Your task to perform on an android device: move a message to another label in the gmail app Image 0: 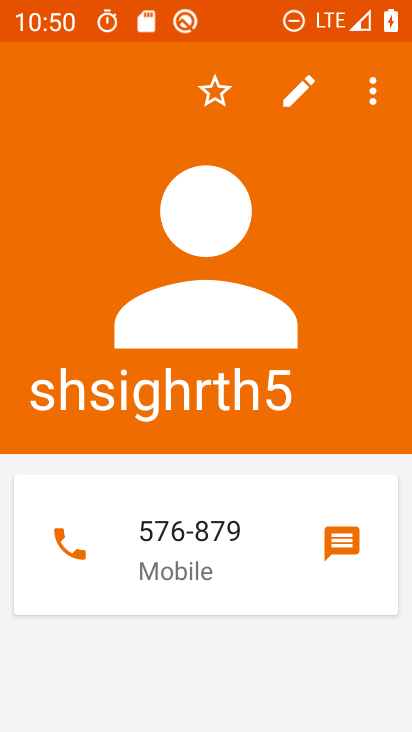
Step 0: press home button
Your task to perform on an android device: move a message to another label in the gmail app Image 1: 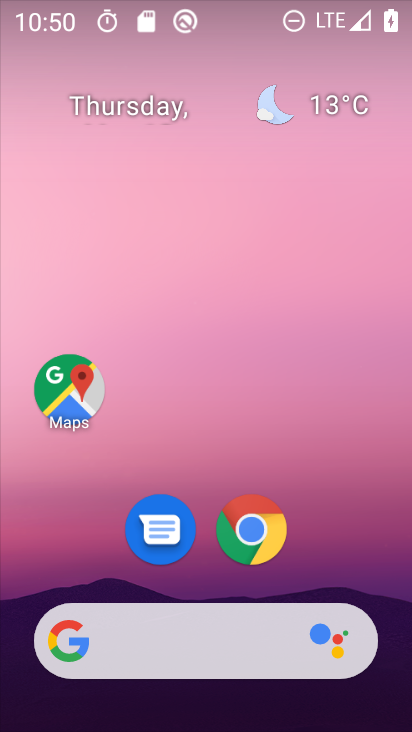
Step 1: drag from (330, 543) to (253, 288)
Your task to perform on an android device: move a message to another label in the gmail app Image 2: 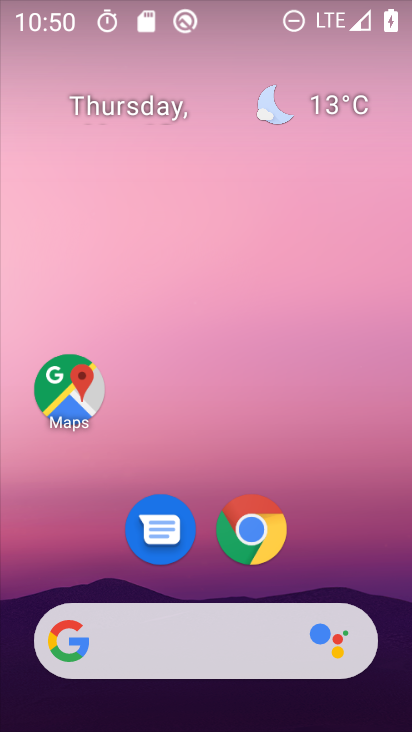
Step 2: drag from (333, 544) to (272, 129)
Your task to perform on an android device: move a message to another label in the gmail app Image 3: 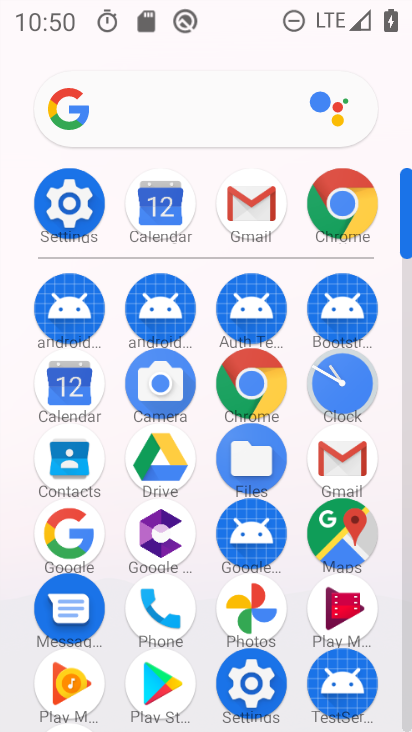
Step 3: click (242, 225)
Your task to perform on an android device: move a message to another label in the gmail app Image 4: 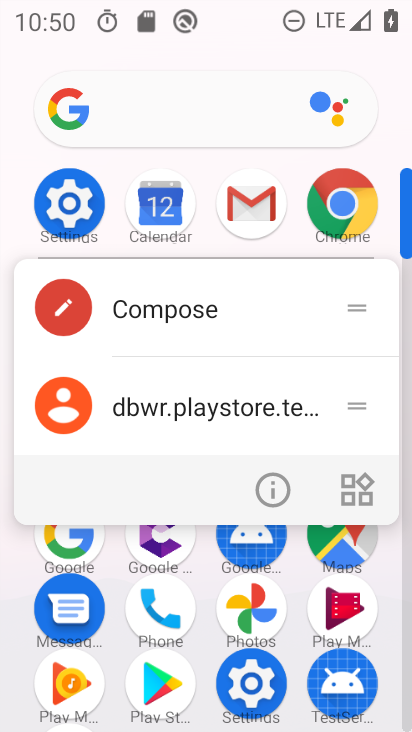
Step 4: click (247, 214)
Your task to perform on an android device: move a message to another label in the gmail app Image 5: 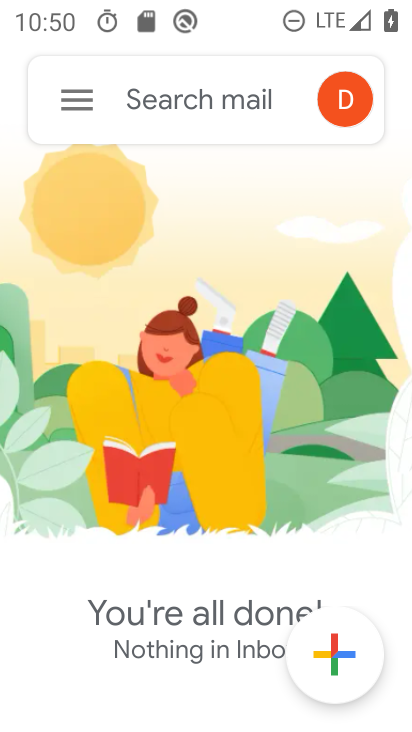
Step 5: click (80, 116)
Your task to perform on an android device: move a message to another label in the gmail app Image 6: 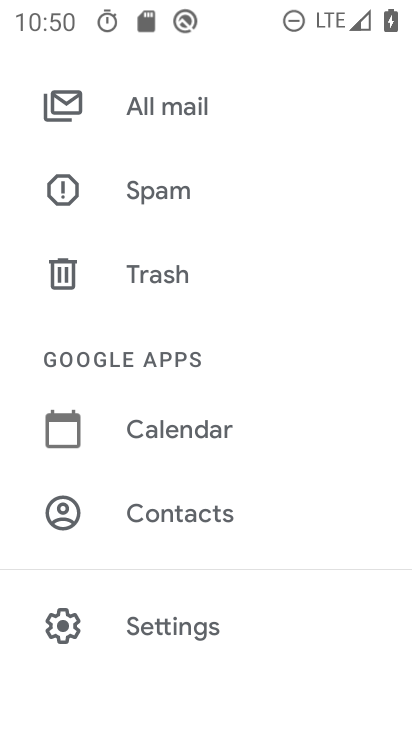
Step 6: click (194, 119)
Your task to perform on an android device: move a message to another label in the gmail app Image 7: 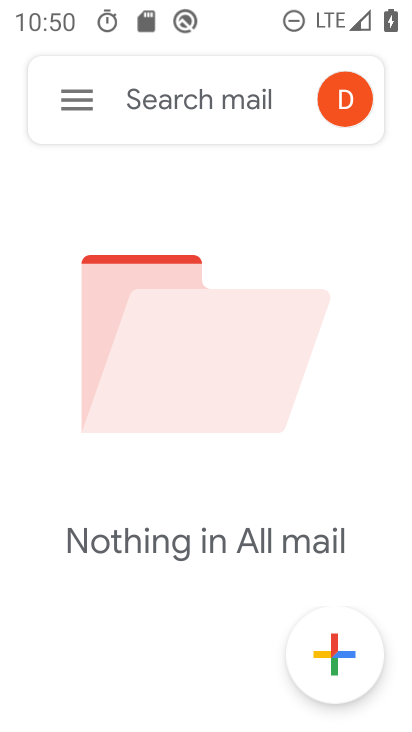
Step 7: click (75, 99)
Your task to perform on an android device: move a message to another label in the gmail app Image 8: 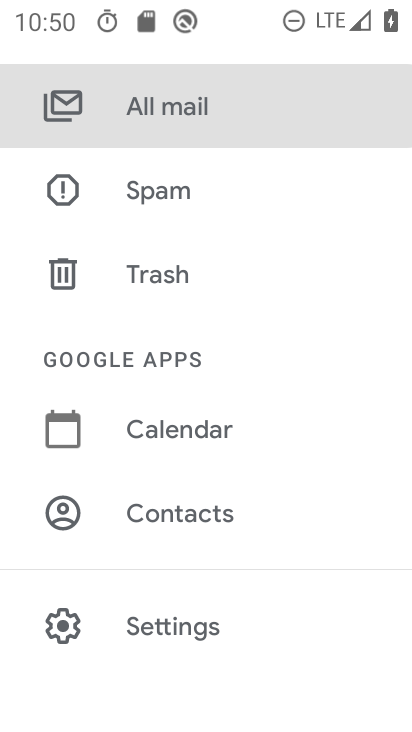
Step 8: drag from (266, 559) to (195, 179)
Your task to perform on an android device: move a message to another label in the gmail app Image 9: 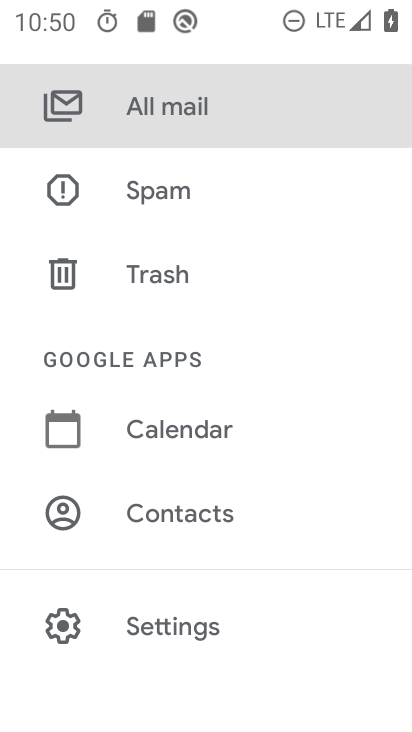
Step 9: click (332, 604)
Your task to perform on an android device: move a message to another label in the gmail app Image 10: 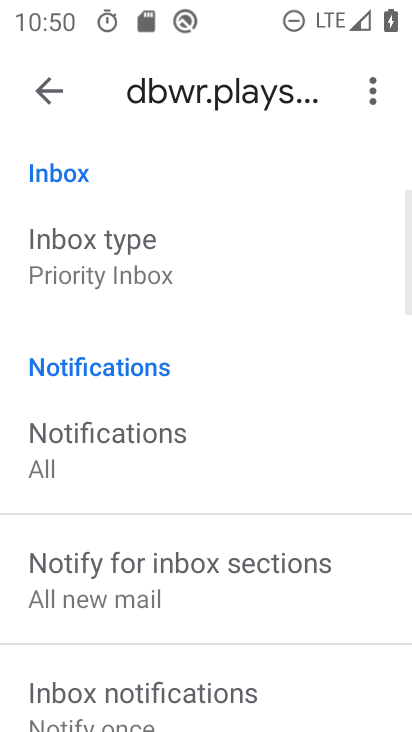
Step 10: drag from (357, 583) to (296, 191)
Your task to perform on an android device: move a message to another label in the gmail app Image 11: 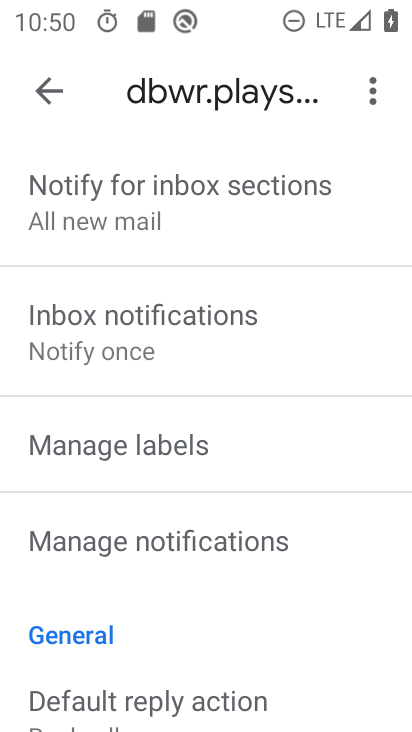
Step 11: drag from (292, 588) to (260, 335)
Your task to perform on an android device: move a message to another label in the gmail app Image 12: 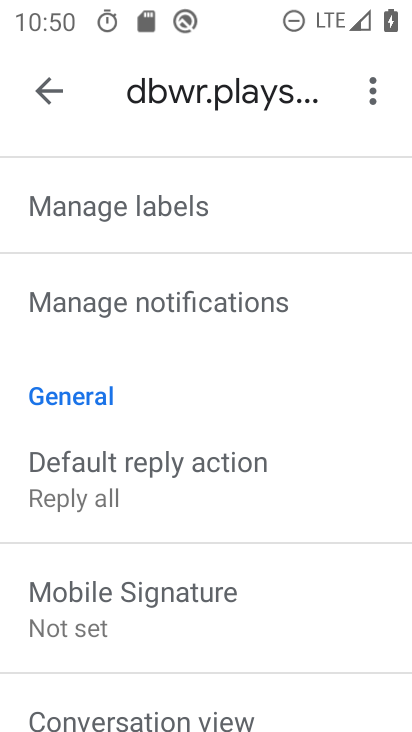
Step 12: drag from (242, 509) to (208, 281)
Your task to perform on an android device: move a message to another label in the gmail app Image 13: 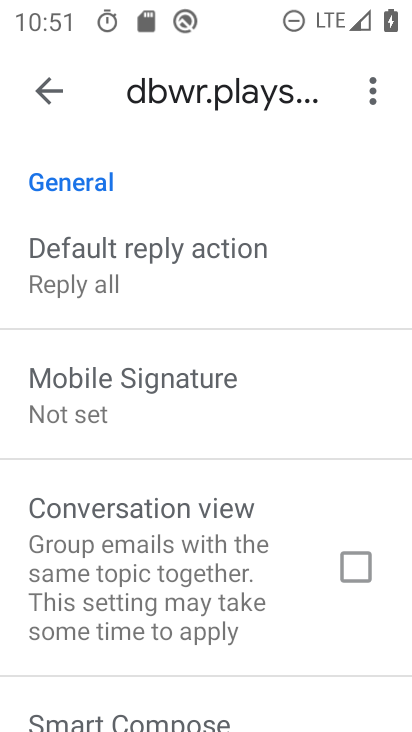
Step 13: drag from (257, 605) to (196, 278)
Your task to perform on an android device: move a message to another label in the gmail app Image 14: 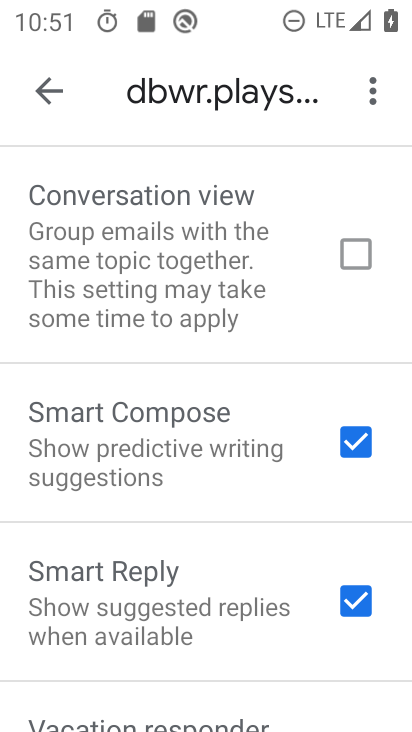
Step 14: drag from (170, 581) to (130, 321)
Your task to perform on an android device: move a message to another label in the gmail app Image 15: 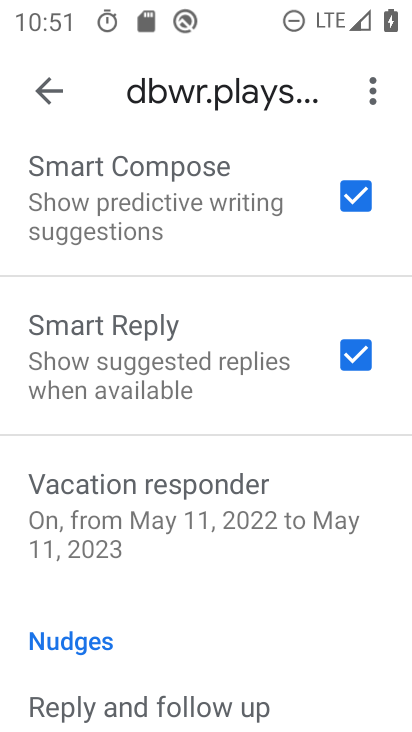
Step 15: drag from (189, 613) to (141, 323)
Your task to perform on an android device: move a message to another label in the gmail app Image 16: 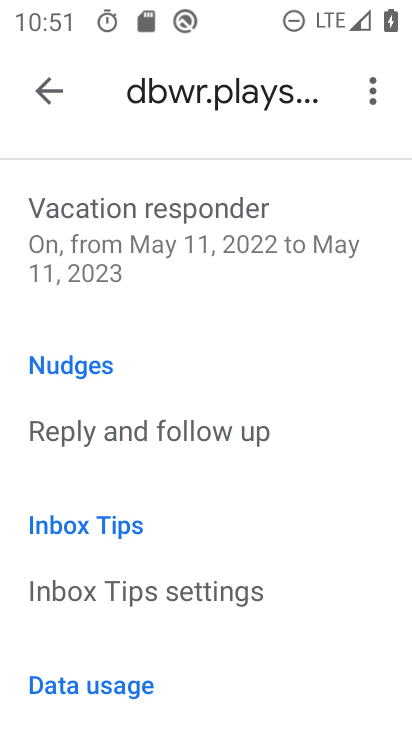
Step 16: click (41, 78)
Your task to perform on an android device: move a message to another label in the gmail app Image 17: 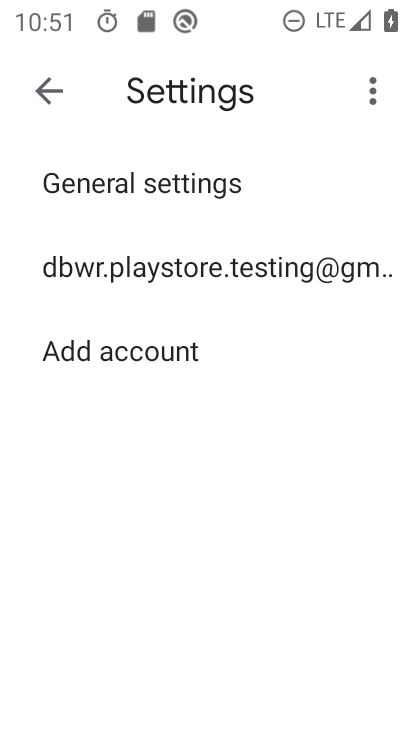
Step 17: click (46, 80)
Your task to perform on an android device: move a message to another label in the gmail app Image 18: 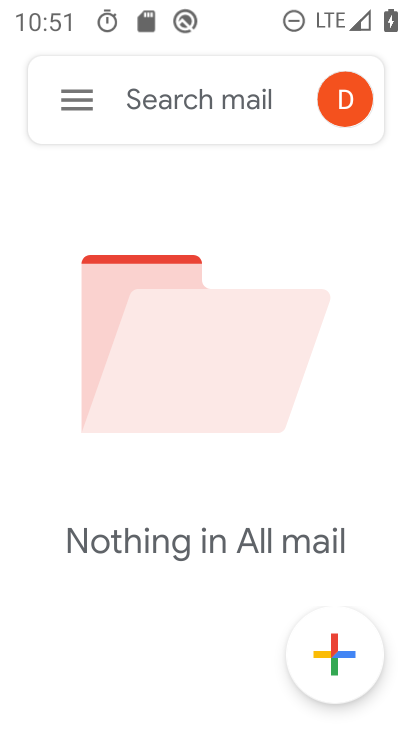
Step 18: task complete